Your task to perform on an android device: install app "Facebook" Image 0: 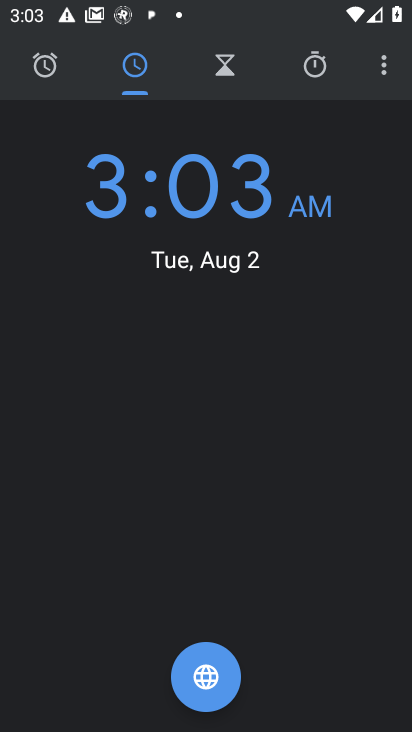
Step 0: press home button
Your task to perform on an android device: install app "Facebook" Image 1: 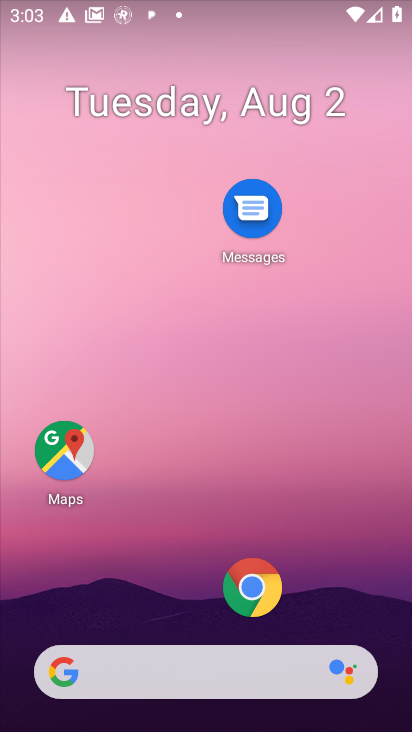
Step 1: drag from (160, 617) to (124, 238)
Your task to perform on an android device: install app "Facebook" Image 2: 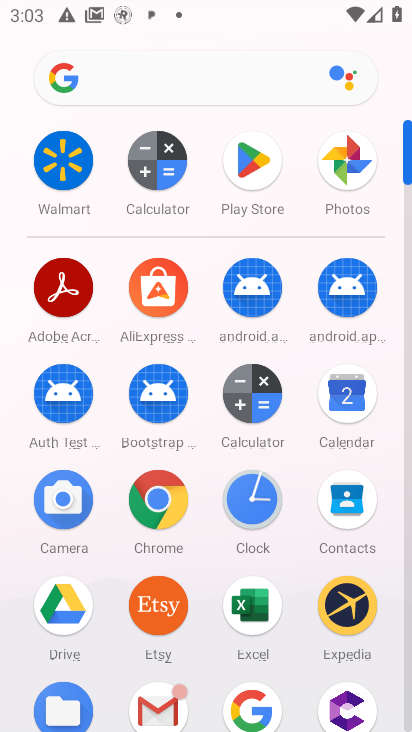
Step 2: click (237, 162)
Your task to perform on an android device: install app "Facebook" Image 3: 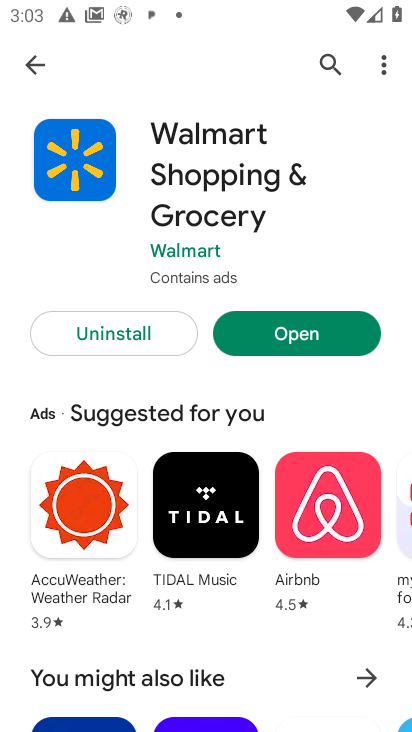
Step 3: click (319, 62)
Your task to perform on an android device: install app "Facebook" Image 4: 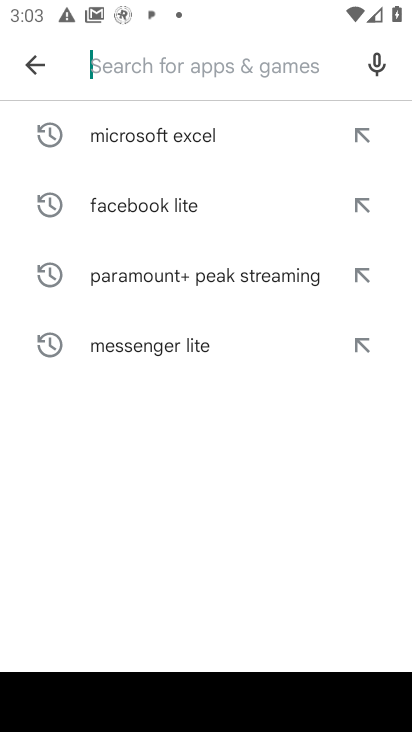
Step 4: type "Facebook"
Your task to perform on an android device: install app "Facebook" Image 5: 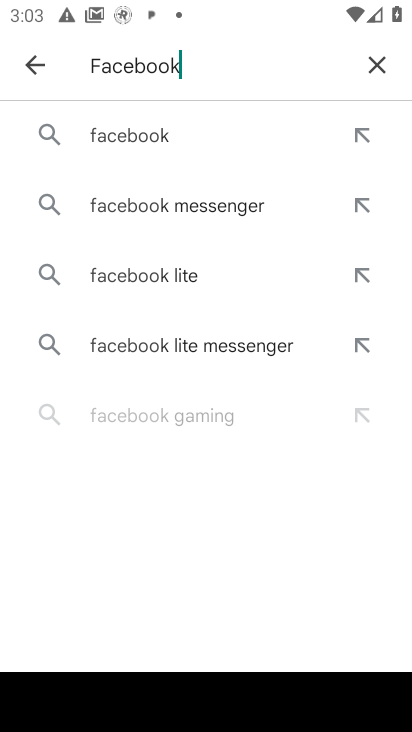
Step 5: type ""
Your task to perform on an android device: install app "Facebook" Image 6: 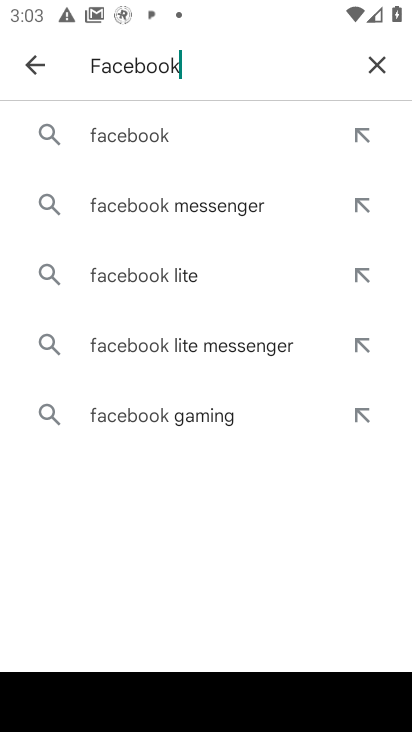
Step 6: click (206, 126)
Your task to perform on an android device: install app "Facebook" Image 7: 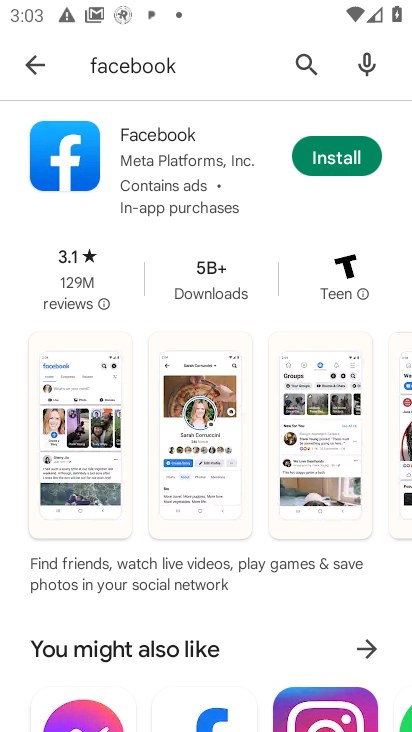
Step 7: click (326, 166)
Your task to perform on an android device: install app "Facebook" Image 8: 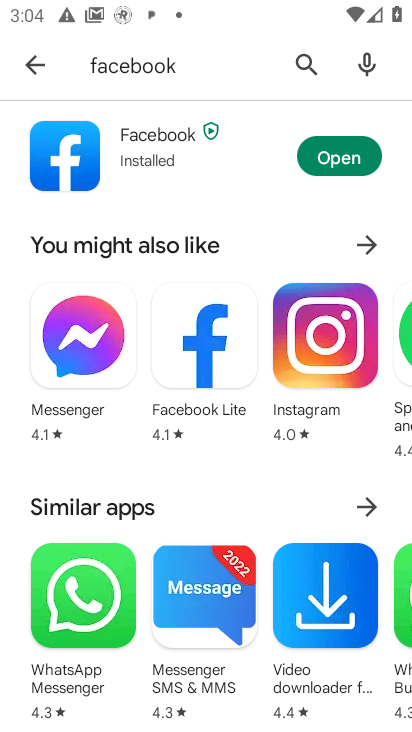
Step 8: task complete